Your task to perform on an android device: star an email in the gmail app Image 0: 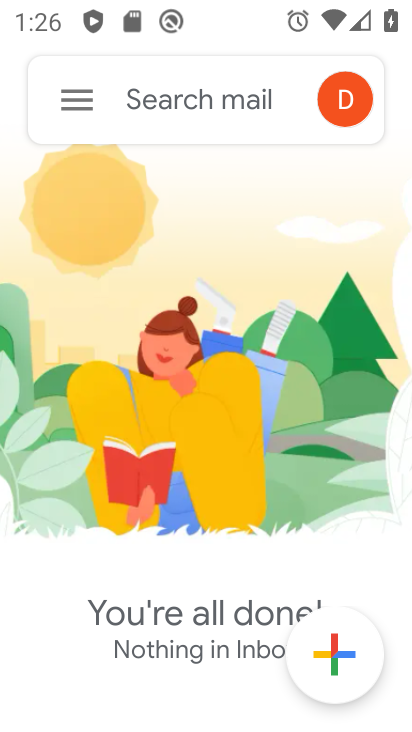
Step 0: press home button
Your task to perform on an android device: star an email in the gmail app Image 1: 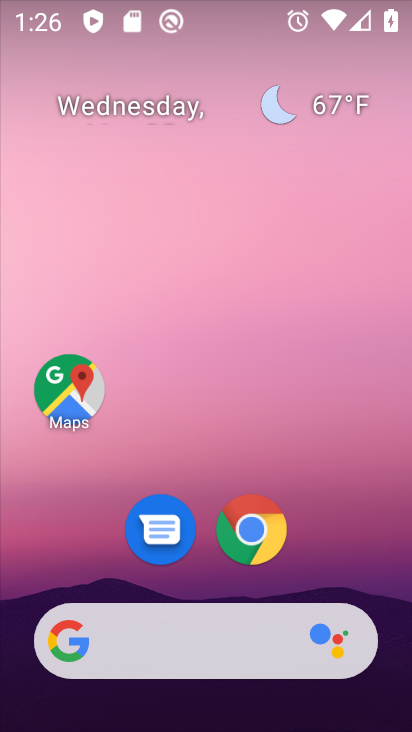
Step 1: drag from (324, 553) to (239, 170)
Your task to perform on an android device: star an email in the gmail app Image 2: 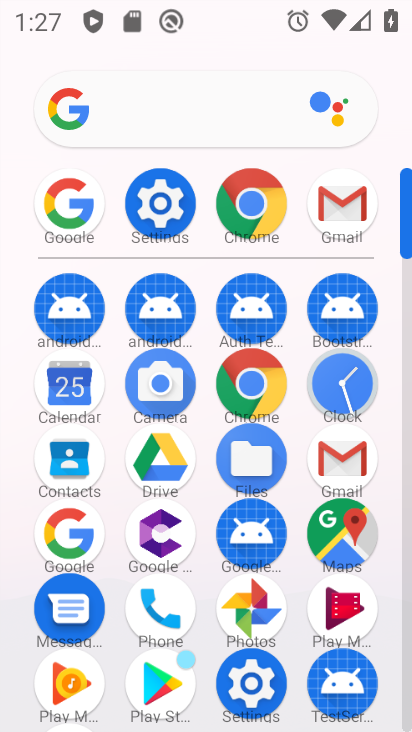
Step 2: click (342, 208)
Your task to perform on an android device: star an email in the gmail app Image 3: 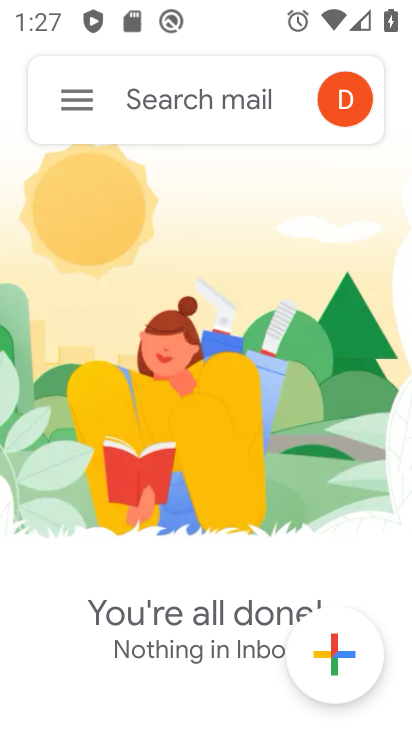
Step 3: click (81, 99)
Your task to perform on an android device: star an email in the gmail app Image 4: 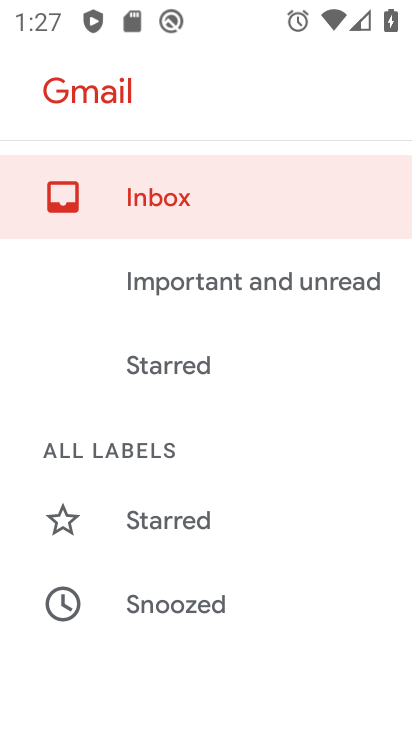
Step 4: drag from (200, 465) to (217, 353)
Your task to perform on an android device: star an email in the gmail app Image 5: 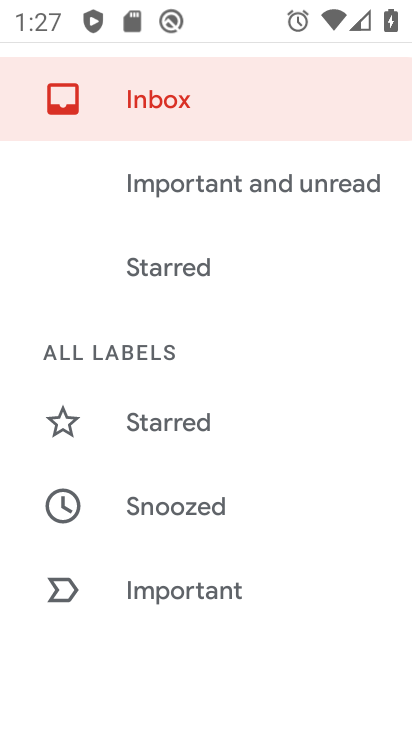
Step 5: drag from (177, 453) to (208, 387)
Your task to perform on an android device: star an email in the gmail app Image 6: 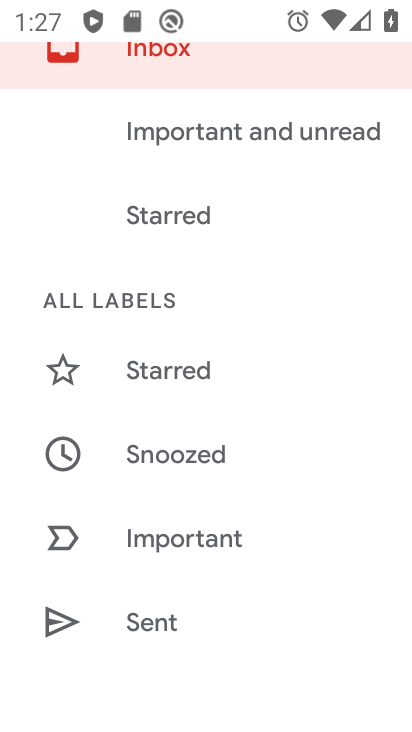
Step 6: drag from (166, 478) to (196, 398)
Your task to perform on an android device: star an email in the gmail app Image 7: 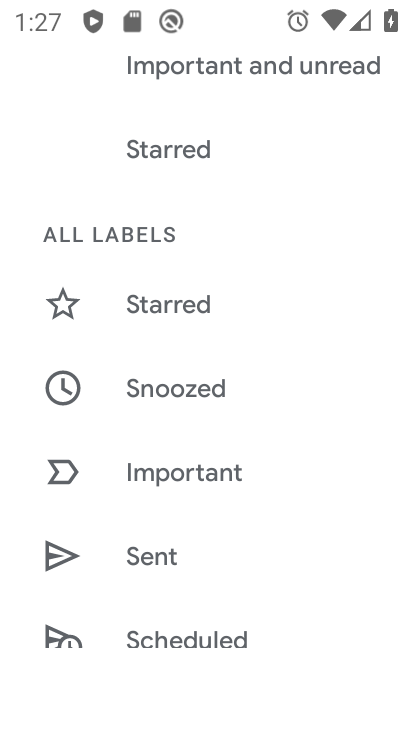
Step 7: drag from (183, 518) to (218, 428)
Your task to perform on an android device: star an email in the gmail app Image 8: 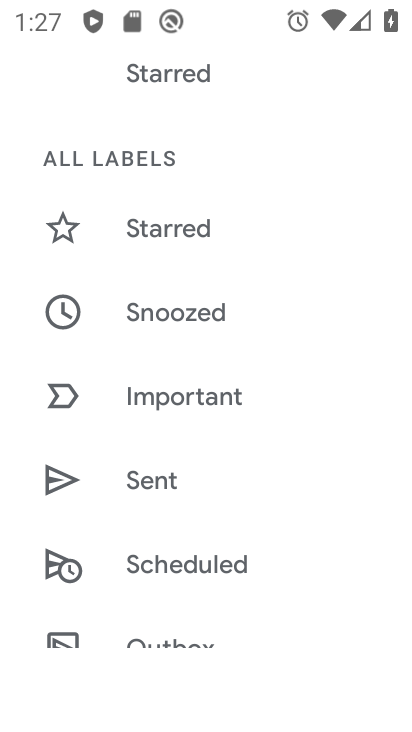
Step 8: drag from (180, 514) to (219, 422)
Your task to perform on an android device: star an email in the gmail app Image 9: 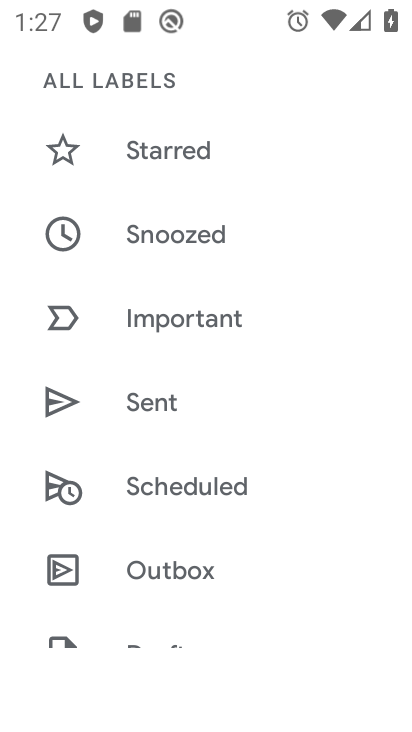
Step 9: drag from (179, 529) to (220, 453)
Your task to perform on an android device: star an email in the gmail app Image 10: 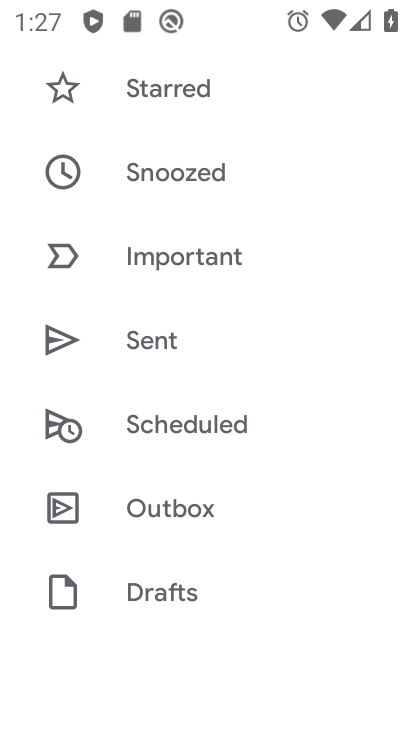
Step 10: drag from (173, 539) to (207, 457)
Your task to perform on an android device: star an email in the gmail app Image 11: 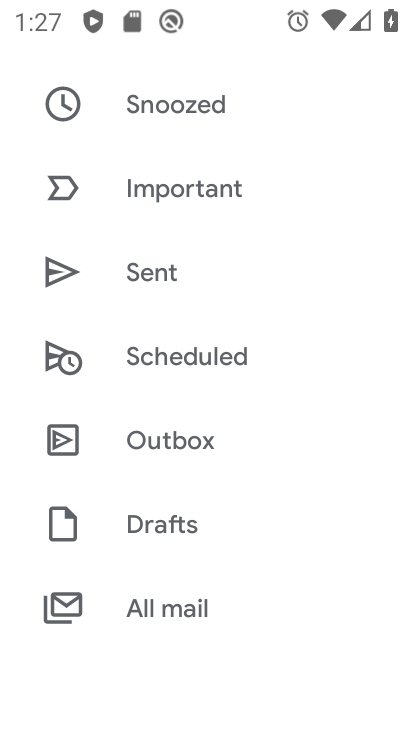
Step 11: drag from (156, 494) to (196, 422)
Your task to perform on an android device: star an email in the gmail app Image 12: 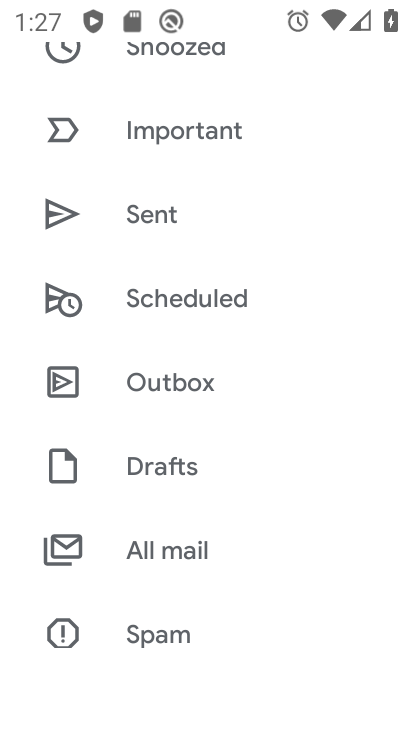
Step 12: drag from (168, 504) to (176, 434)
Your task to perform on an android device: star an email in the gmail app Image 13: 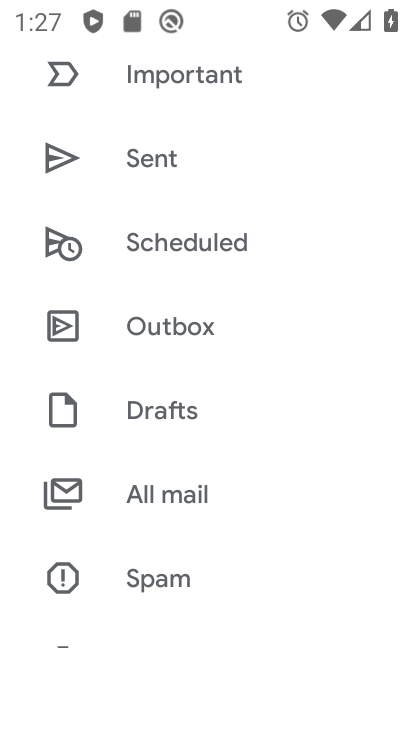
Step 13: drag from (158, 530) to (208, 447)
Your task to perform on an android device: star an email in the gmail app Image 14: 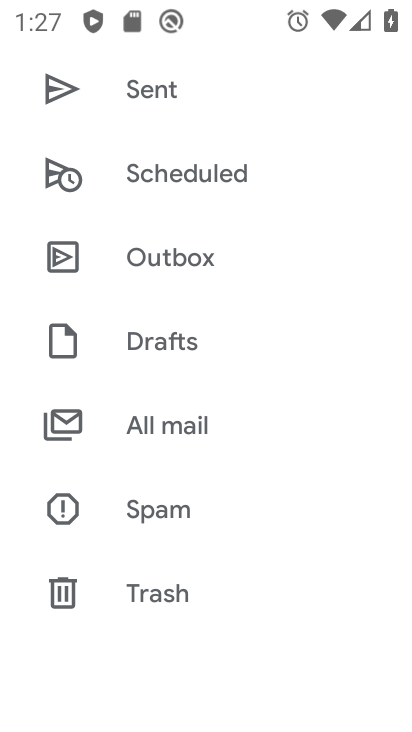
Step 14: drag from (166, 479) to (199, 402)
Your task to perform on an android device: star an email in the gmail app Image 15: 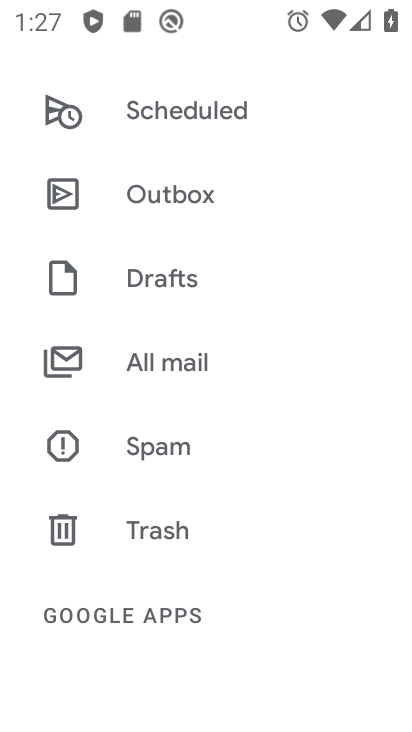
Step 15: drag from (156, 496) to (204, 396)
Your task to perform on an android device: star an email in the gmail app Image 16: 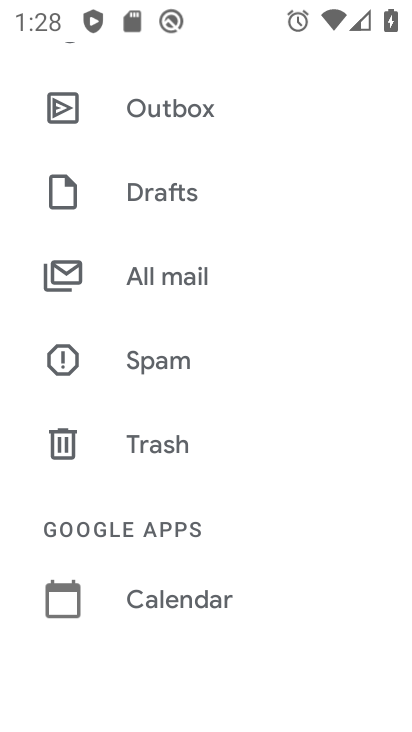
Step 16: drag from (163, 560) to (233, 393)
Your task to perform on an android device: star an email in the gmail app Image 17: 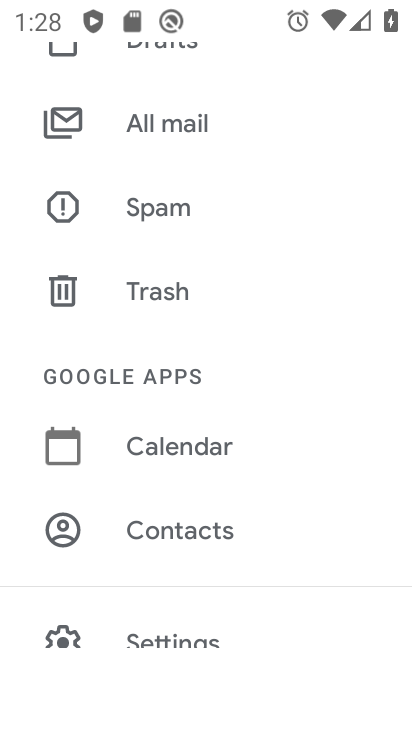
Step 17: click (183, 125)
Your task to perform on an android device: star an email in the gmail app Image 18: 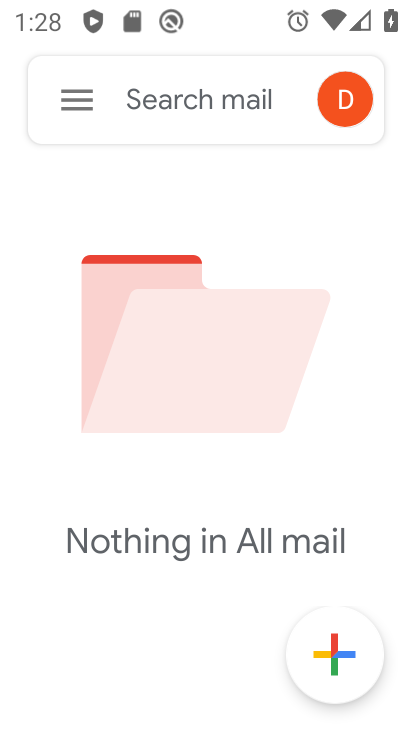
Step 18: task complete